Your task to perform on an android device: toggle data saver in the chrome app Image 0: 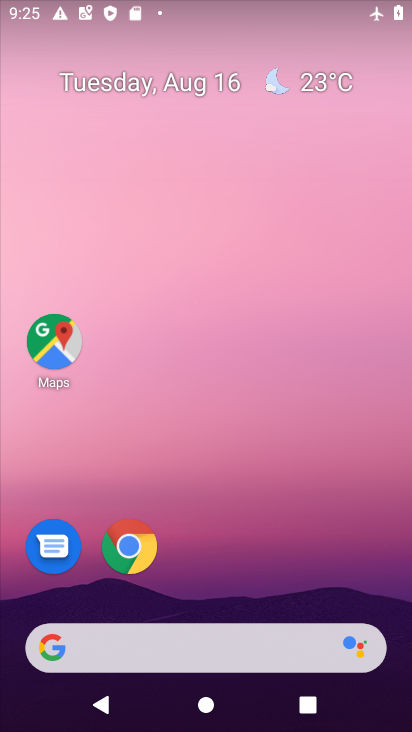
Step 0: click (131, 547)
Your task to perform on an android device: toggle data saver in the chrome app Image 1: 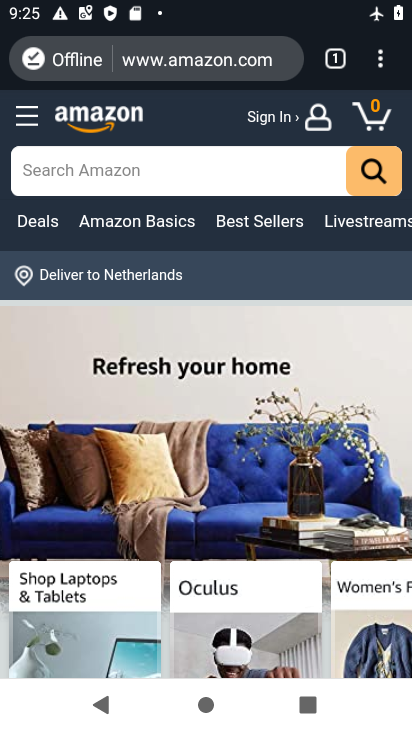
Step 1: click (380, 65)
Your task to perform on an android device: toggle data saver in the chrome app Image 2: 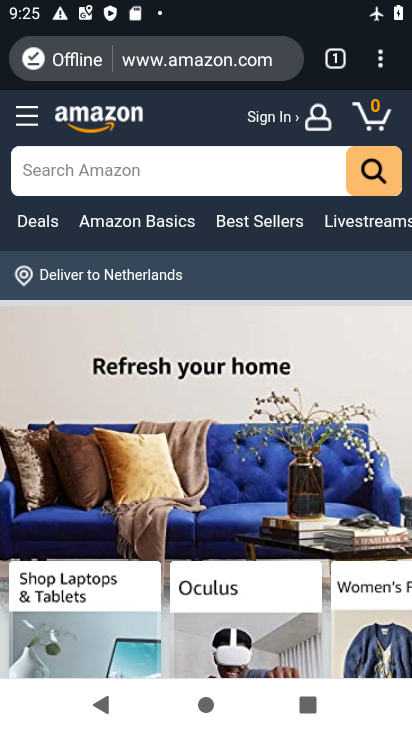
Step 2: click (380, 65)
Your task to perform on an android device: toggle data saver in the chrome app Image 3: 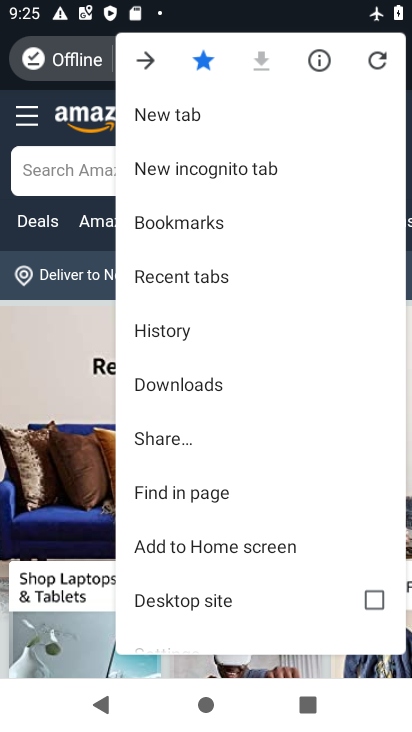
Step 3: drag from (273, 386) to (292, 89)
Your task to perform on an android device: toggle data saver in the chrome app Image 4: 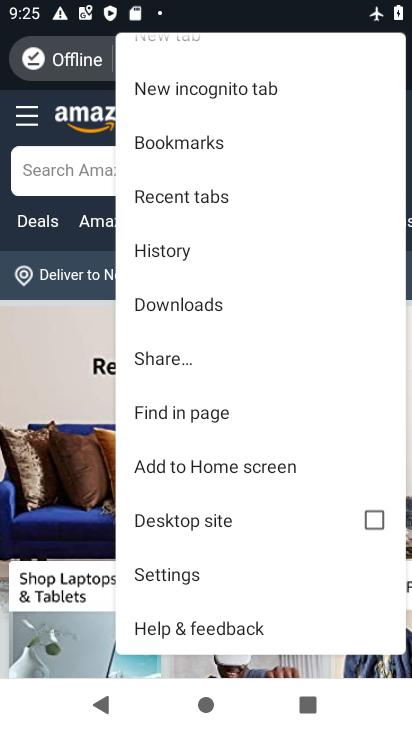
Step 4: click (169, 566)
Your task to perform on an android device: toggle data saver in the chrome app Image 5: 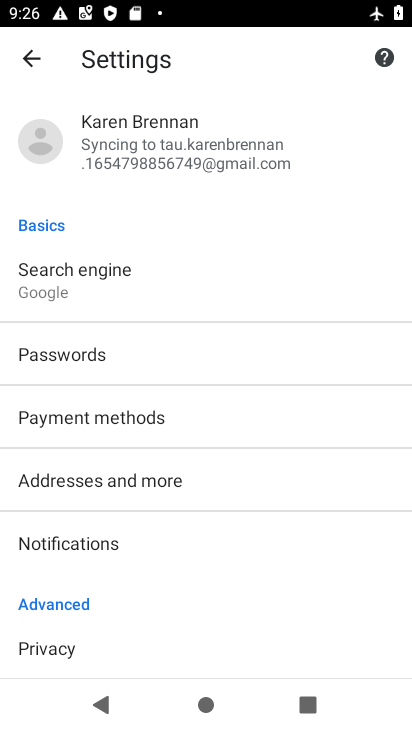
Step 5: drag from (248, 552) to (246, 6)
Your task to perform on an android device: toggle data saver in the chrome app Image 6: 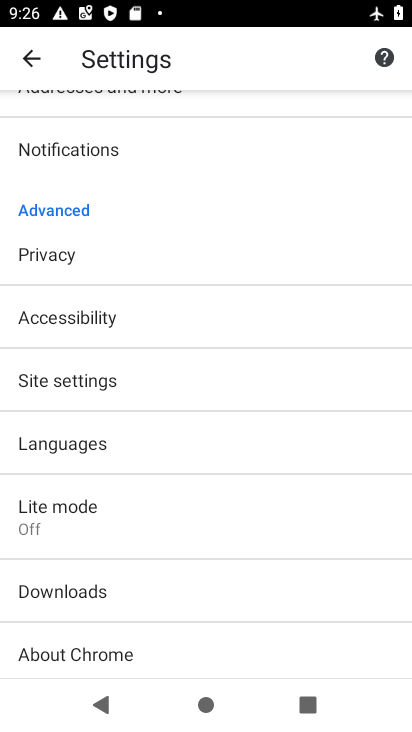
Step 6: click (225, 513)
Your task to perform on an android device: toggle data saver in the chrome app Image 7: 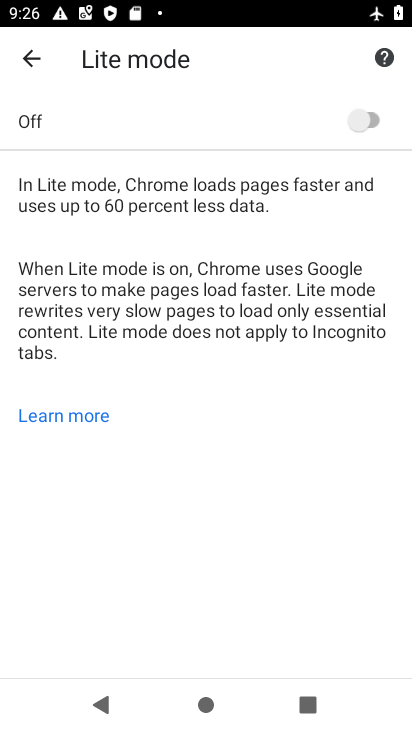
Step 7: click (365, 113)
Your task to perform on an android device: toggle data saver in the chrome app Image 8: 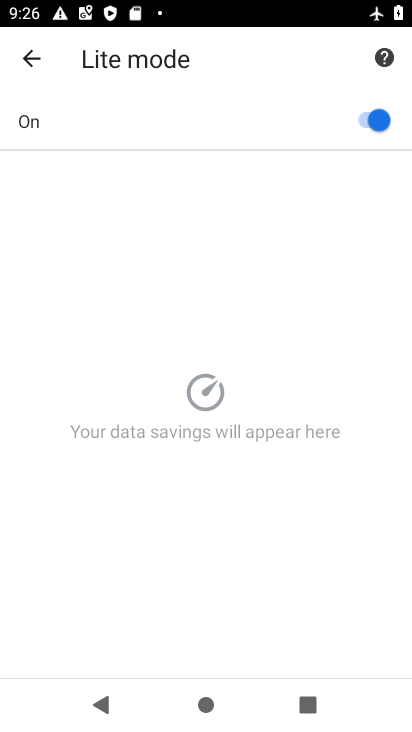
Step 8: task complete